Your task to perform on an android device: set an alarm Image 0: 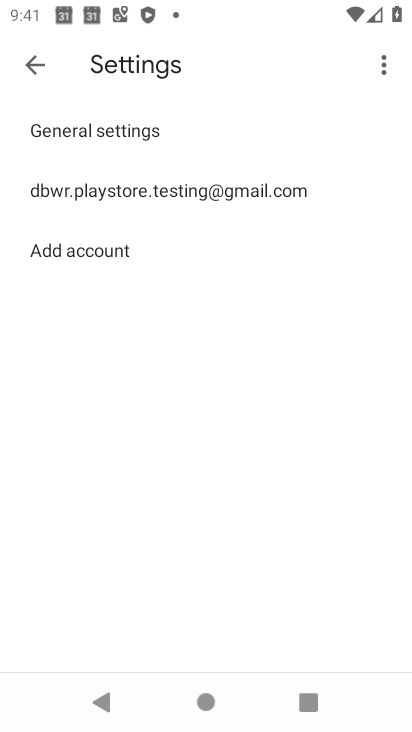
Step 0: press home button
Your task to perform on an android device: set an alarm Image 1: 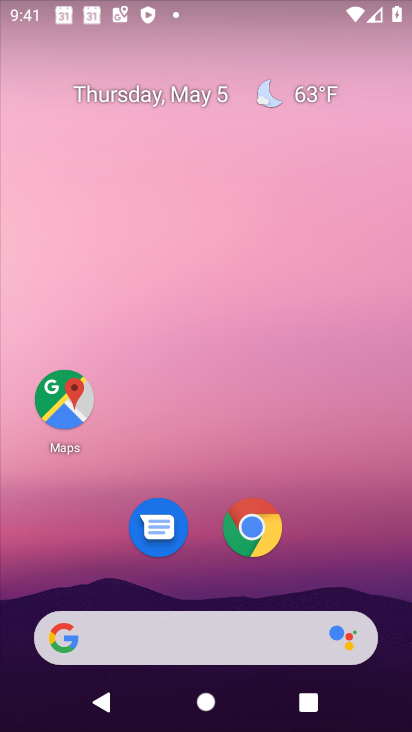
Step 1: drag from (261, 701) to (337, 4)
Your task to perform on an android device: set an alarm Image 2: 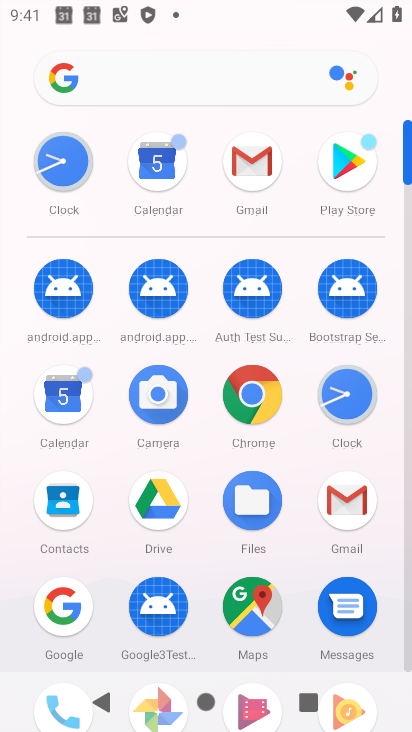
Step 2: click (352, 394)
Your task to perform on an android device: set an alarm Image 3: 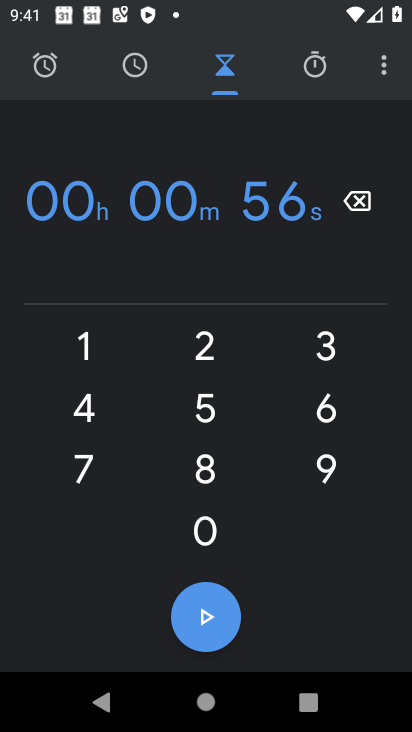
Step 3: click (53, 75)
Your task to perform on an android device: set an alarm Image 4: 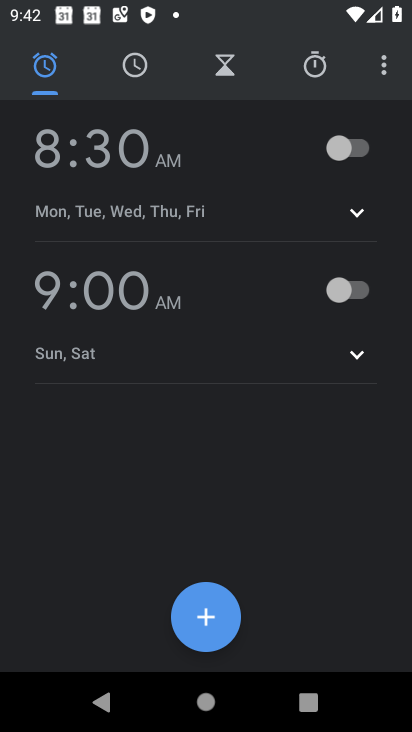
Step 4: click (206, 614)
Your task to perform on an android device: set an alarm Image 5: 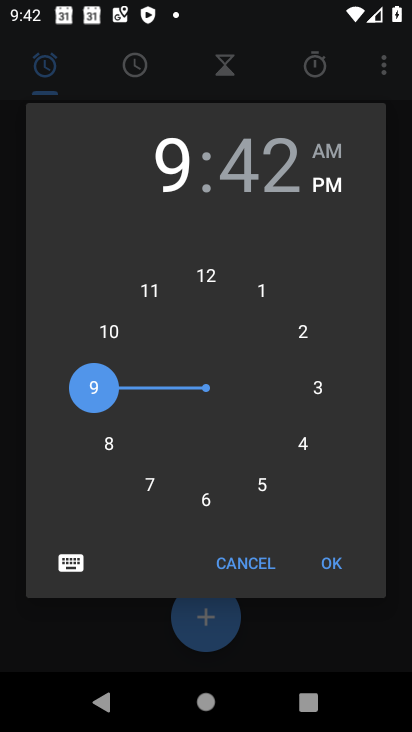
Step 5: click (318, 567)
Your task to perform on an android device: set an alarm Image 6: 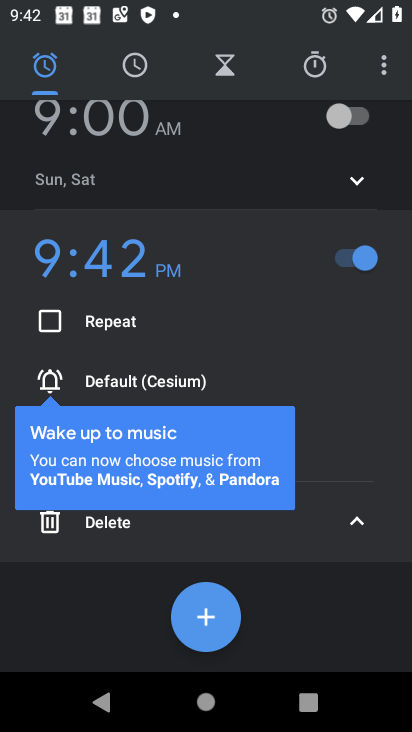
Step 6: task complete